Your task to perform on an android device: Go to sound settings Image 0: 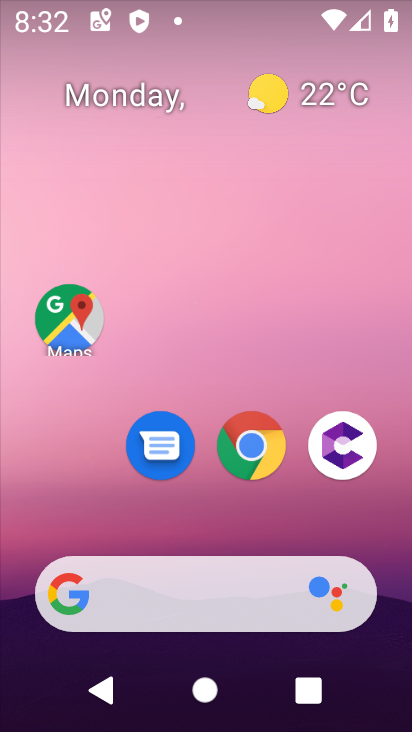
Step 0: drag from (196, 343) to (178, 92)
Your task to perform on an android device: Go to sound settings Image 1: 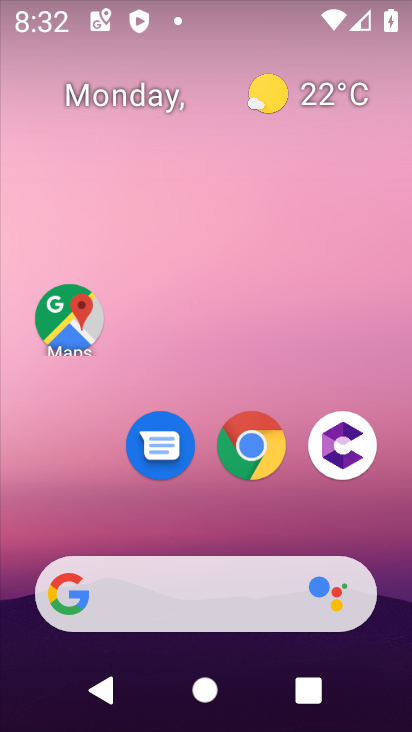
Step 1: drag from (201, 349) to (179, 47)
Your task to perform on an android device: Go to sound settings Image 2: 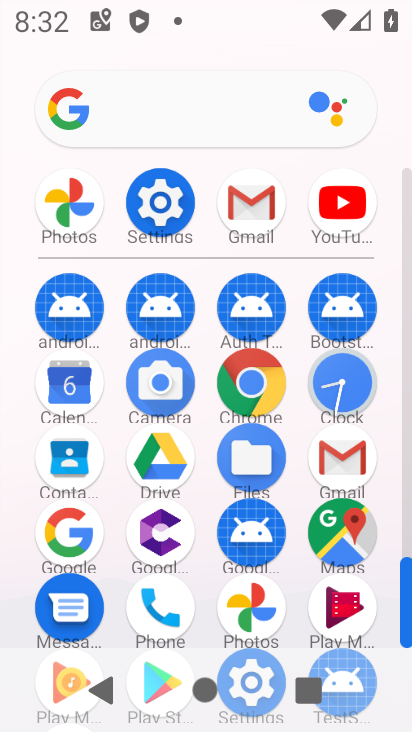
Step 2: click (154, 218)
Your task to perform on an android device: Go to sound settings Image 3: 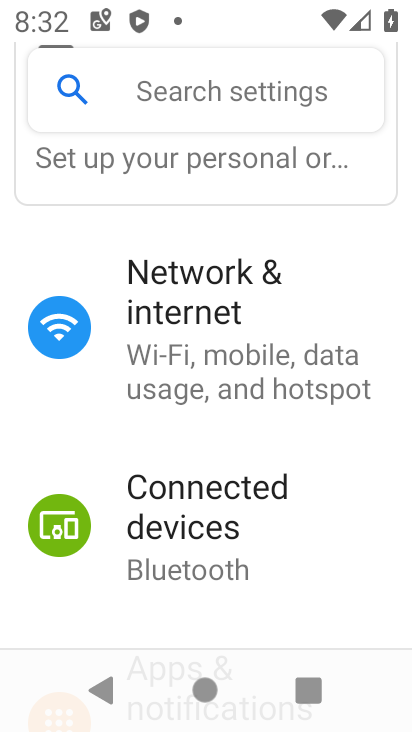
Step 3: drag from (59, 448) to (63, 121)
Your task to perform on an android device: Go to sound settings Image 4: 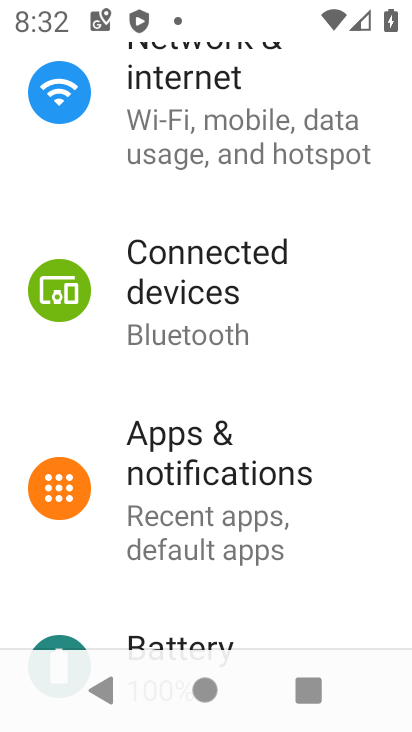
Step 4: drag from (60, 581) to (41, 150)
Your task to perform on an android device: Go to sound settings Image 5: 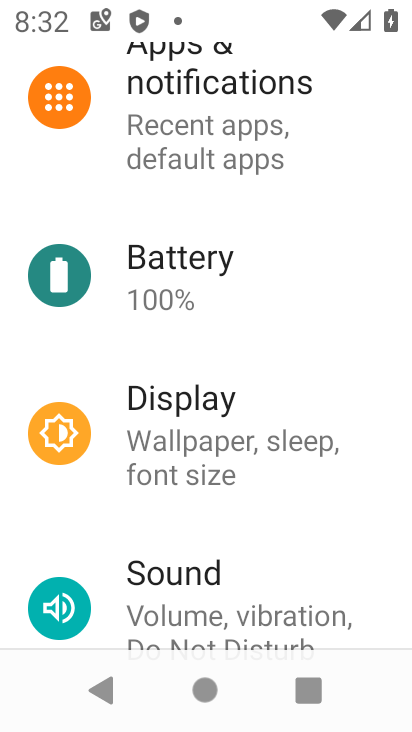
Step 5: click (170, 590)
Your task to perform on an android device: Go to sound settings Image 6: 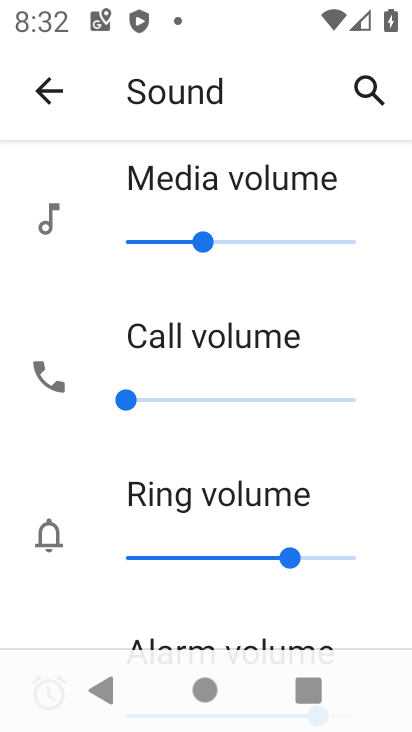
Step 6: task complete